Your task to perform on an android device: What's the weather? Image 0: 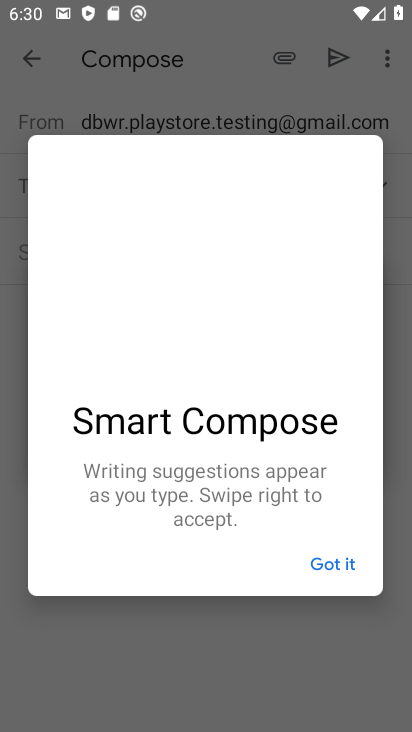
Step 0: press home button
Your task to perform on an android device: What's the weather? Image 1: 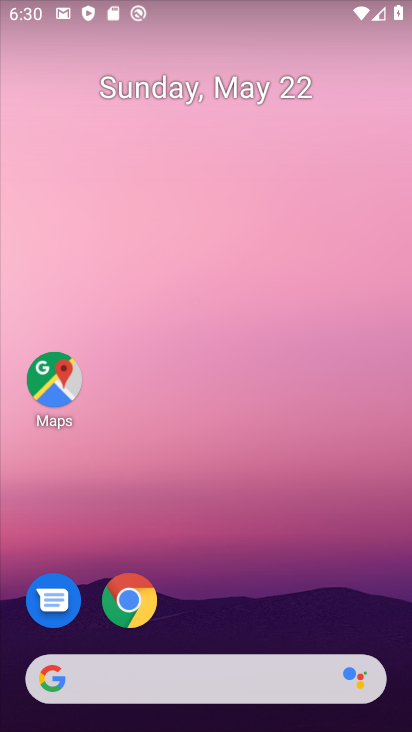
Step 1: drag from (395, 614) to (355, 95)
Your task to perform on an android device: What's the weather? Image 2: 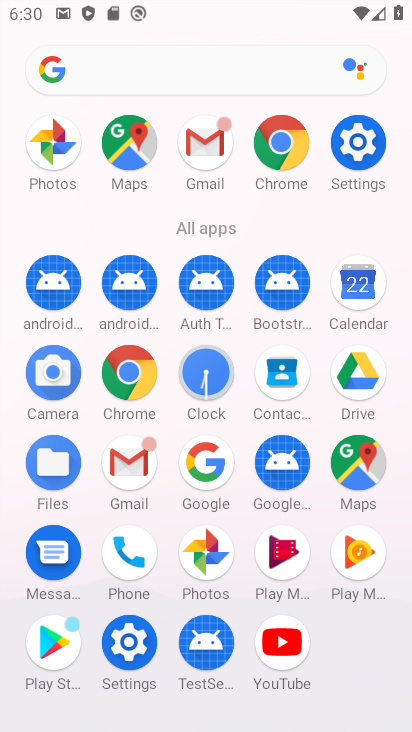
Step 2: click (196, 462)
Your task to perform on an android device: What's the weather? Image 3: 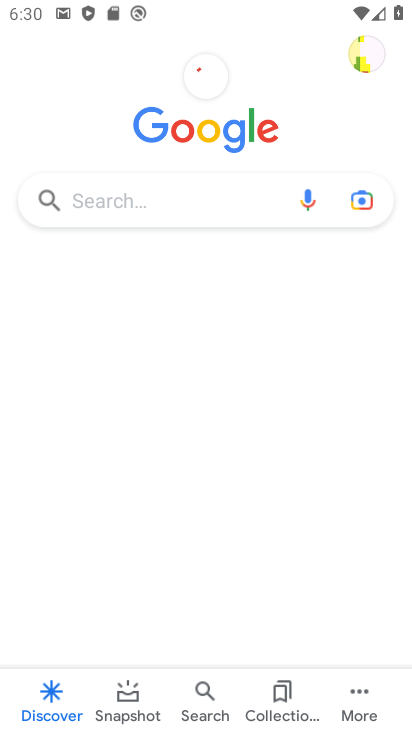
Step 3: click (144, 198)
Your task to perform on an android device: What's the weather? Image 4: 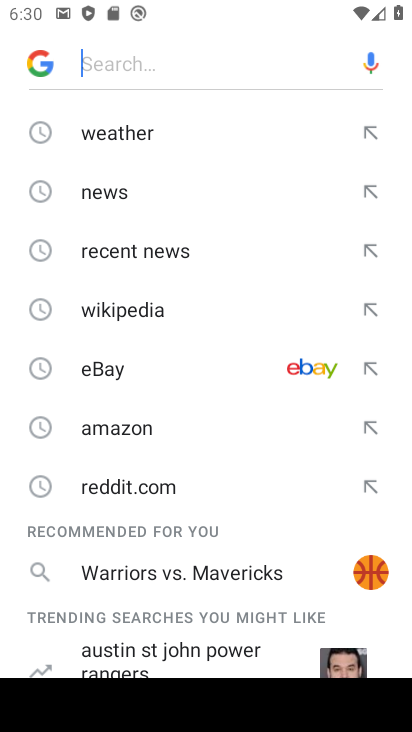
Step 4: click (154, 143)
Your task to perform on an android device: What's the weather? Image 5: 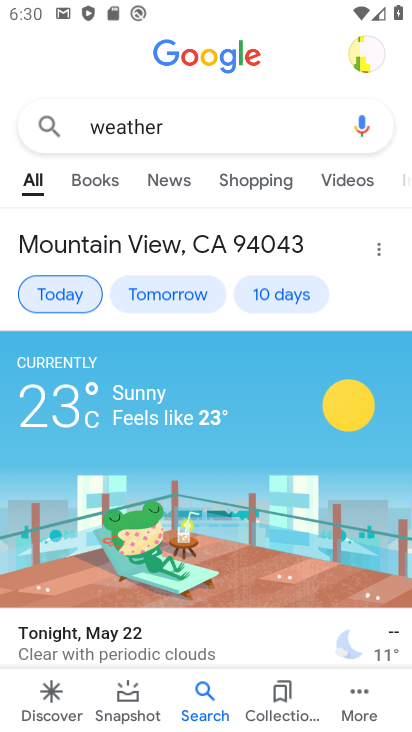
Step 5: task complete